Your task to perform on an android device: turn off translation in the chrome app Image 0: 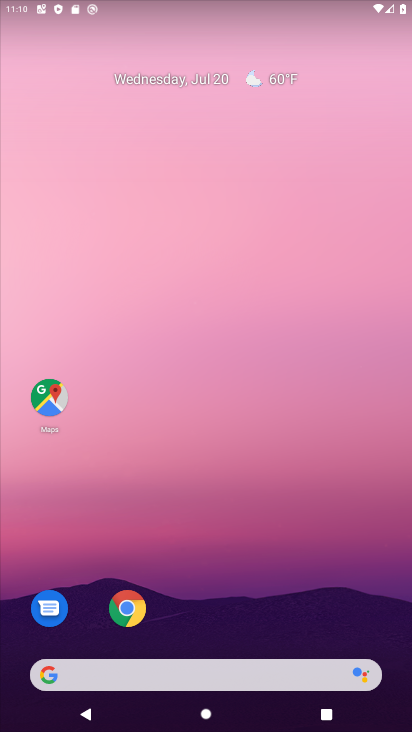
Step 0: click (132, 606)
Your task to perform on an android device: turn off translation in the chrome app Image 1: 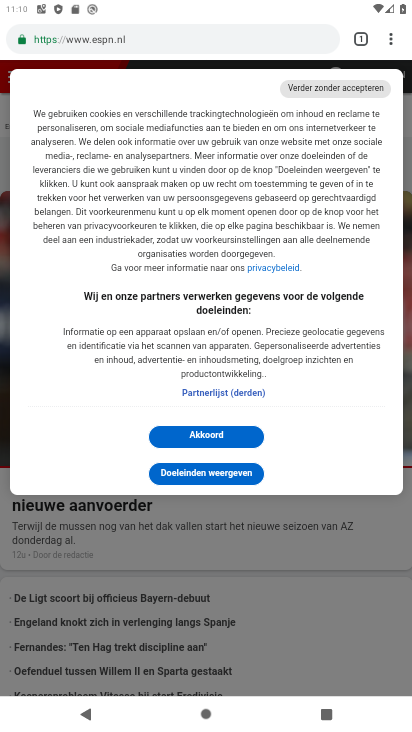
Step 1: click (391, 34)
Your task to perform on an android device: turn off translation in the chrome app Image 2: 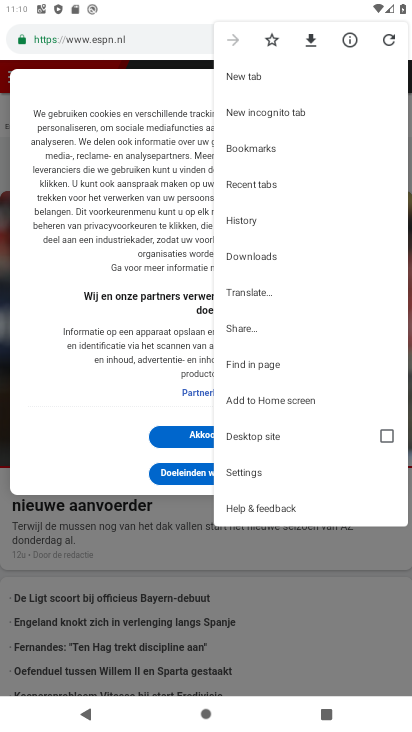
Step 2: click (257, 463)
Your task to perform on an android device: turn off translation in the chrome app Image 3: 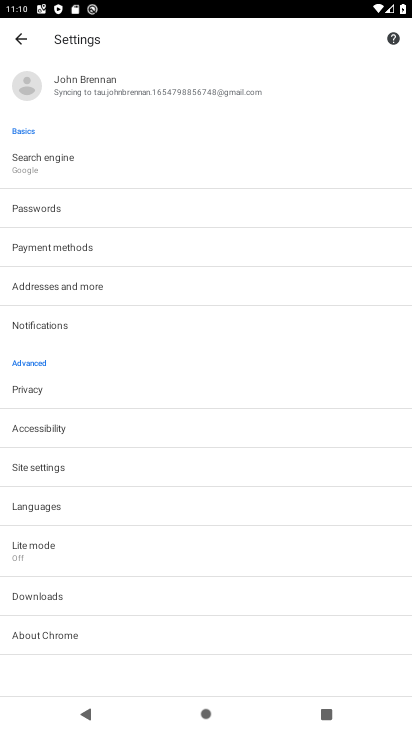
Step 3: click (55, 505)
Your task to perform on an android device: turn off translation in the chrome app Image 4: 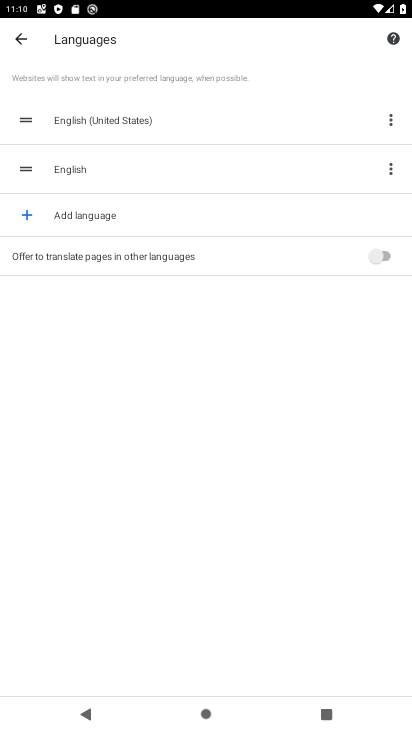
Step 4: task complete